Your task to perform on an android device: Go to network settings Image 0: 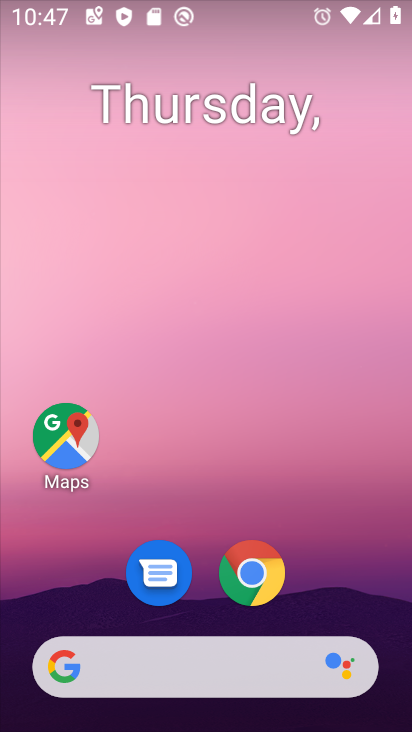
Step 0: drag from (361, 513) to (374, 123)
Your task to perform on an android device: Go to network settings Image 1: 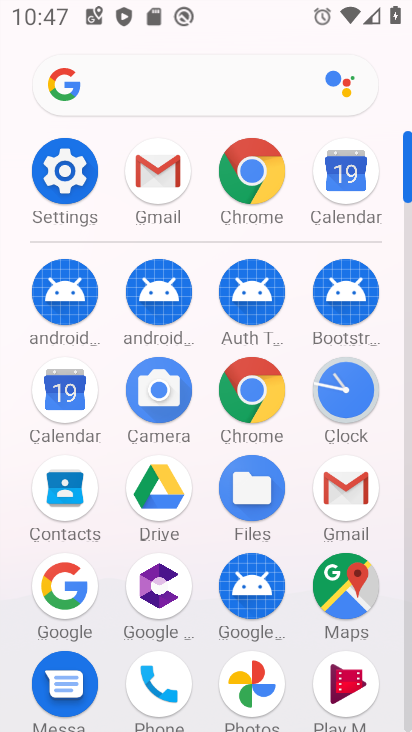
Step 1: click (86, 175)
Your task to perform on an android device: Go to network settings Image 2: 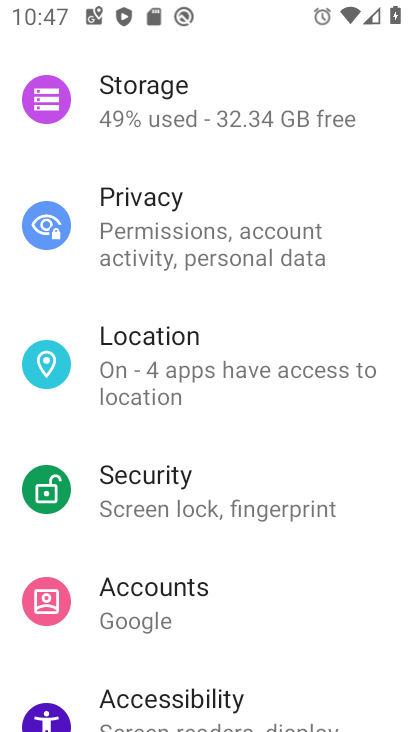
Step 2: drag from (307, 643) to (349, 209)
Your task to perform on an android device: Go to network settings Image 3: 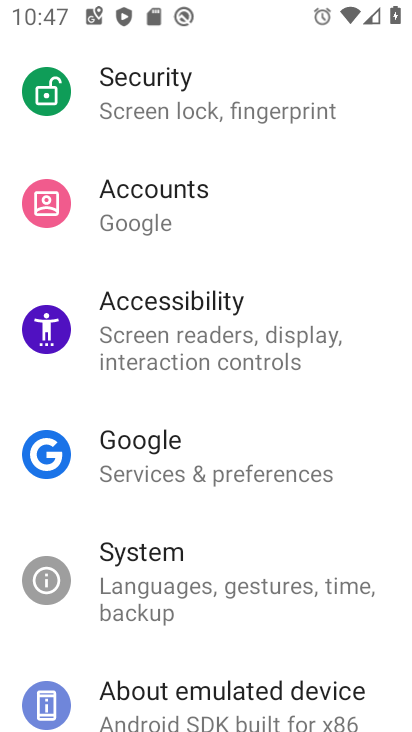
Step 3: drag from (349, 209) to (298, 693)
Your task to perform on an android device: Go to network settings Image 4: 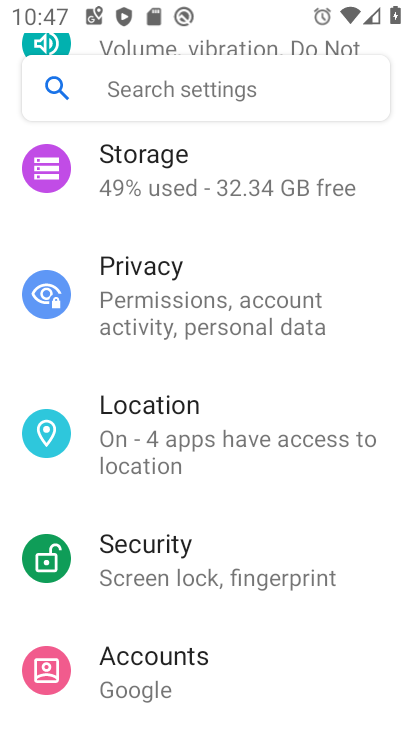
Step 4: drag from (277, 285) to (260, 673)
Your task to perform on an android device: Go to network settings Image 5: 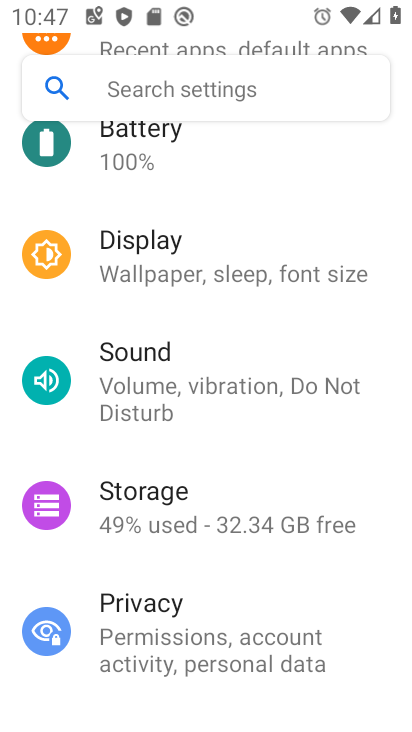
Step 5: drag from (227, 231) to (239, 660)
Your task to perform on an android device: Go to network settings Image 6: 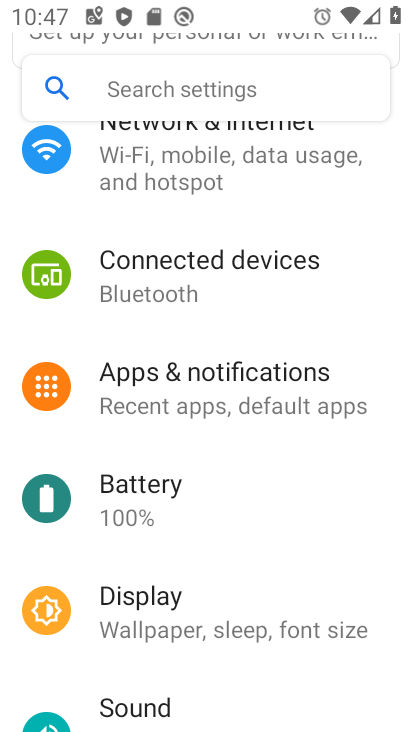
Step 6: drag from (224, 259) to (226, 604)
Your task to perform on an android device: Go to network settings Image 7: 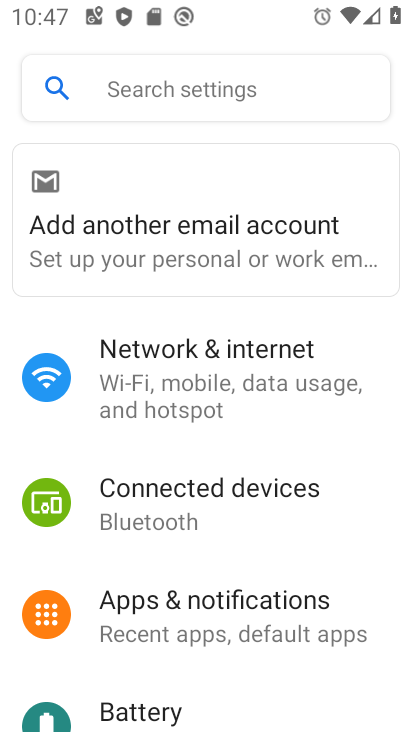
Step 7: click (222, 362)
Your task to perform on an android device: Go to network settings Image 8: 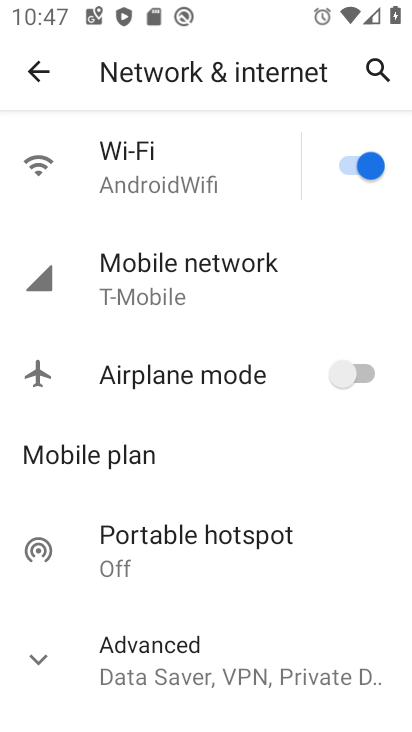
Step 8: click (222, 648)
Your task to perform on an android device: Go to network settings Image 9: 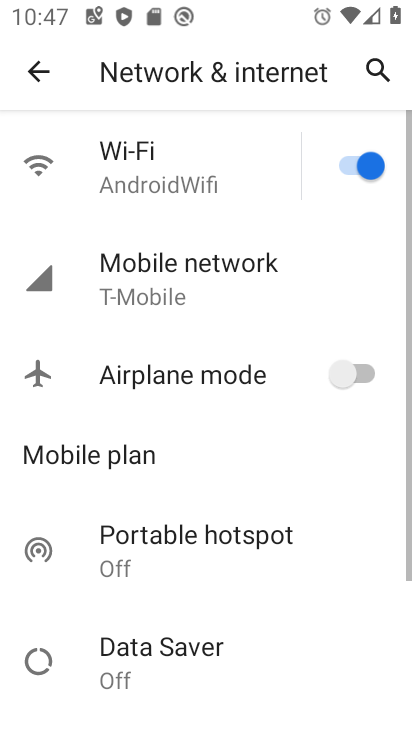
Step 9: task complete